Your task to perform on an android device: Open the phone app and click the voicemail tab. Image 0: 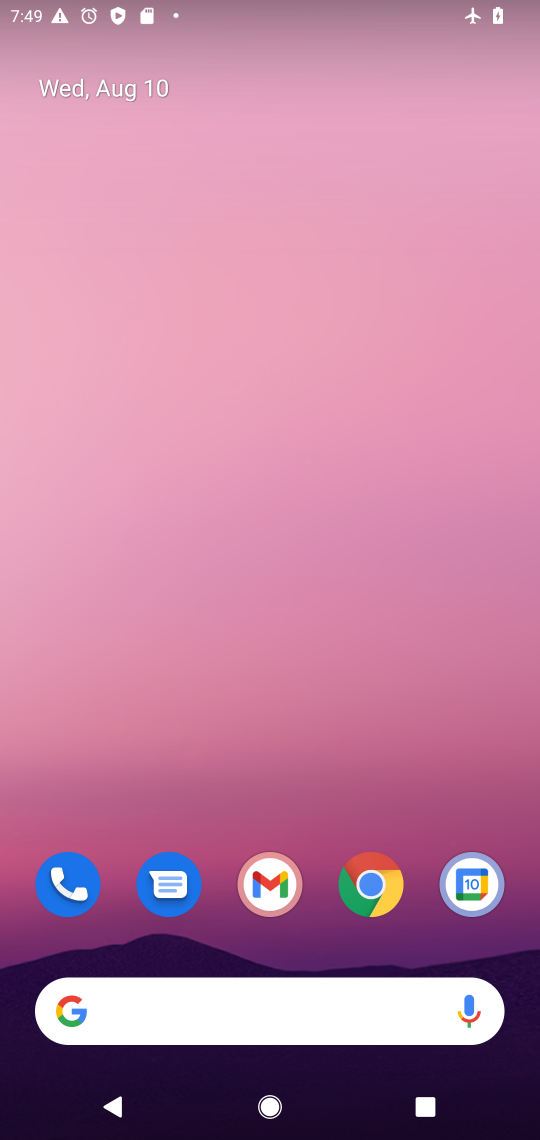
Step 0: drag from (52, 1086) to (263, 615)
Your task to perform on an android device: Open the phone app and click the voicemail tab. Image 1: 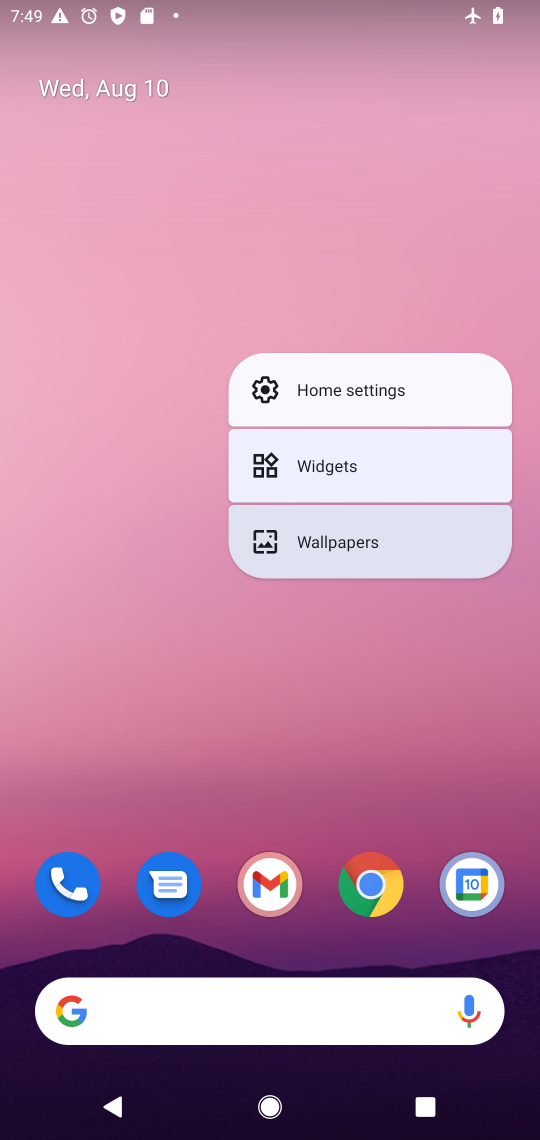
Step 1: task complete